Your task to perform on an android device: move an email to a new category in the gmail app Image 0: 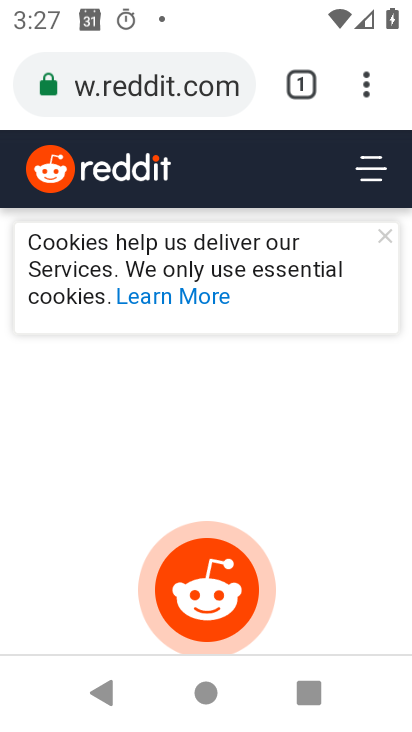
Step 0: press home button
Your task to perform on an android device: move an email to a new category in the gmail app Image 1: 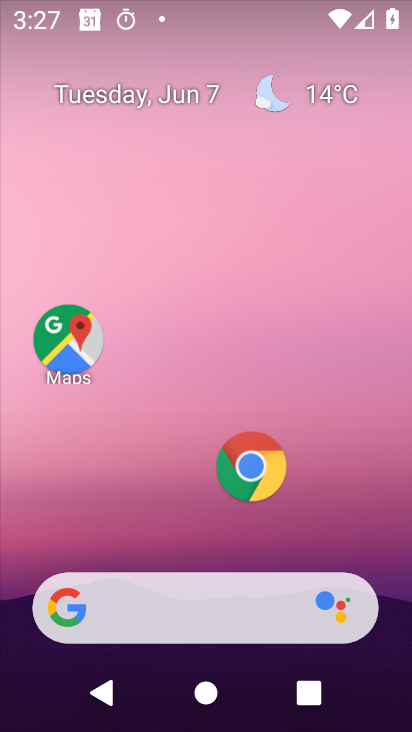
Step 1: drag from (131, 337) to (110, 28)
Your task to perform on an android device: move an email to a new category in the gmail app Image 2: 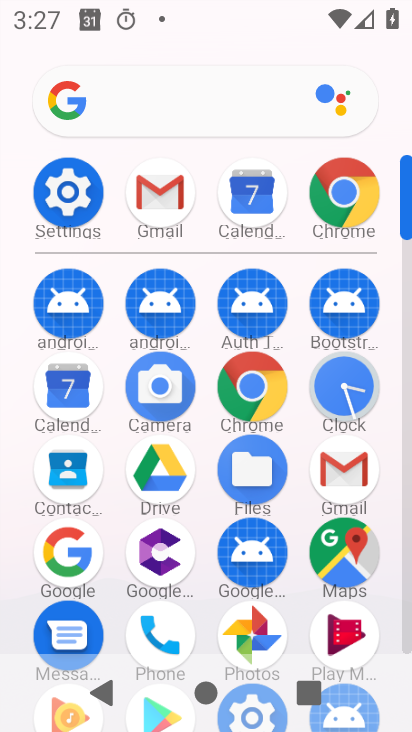
Step 2: click (168, 215)
Your task to perform on an android device: move an email to a new category in the gmail app Image 3: 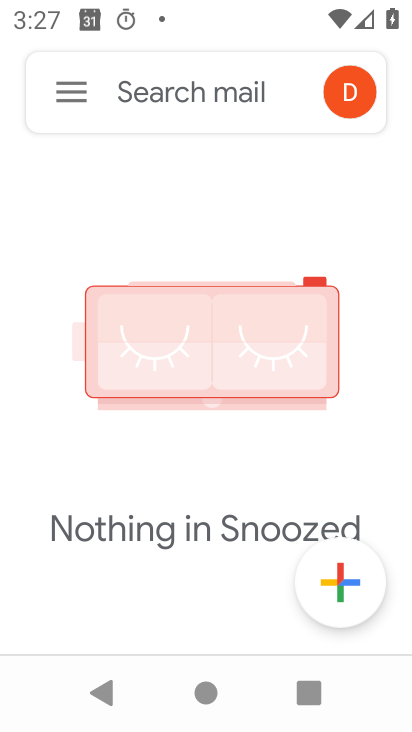
Step 3: click (46, 94)
Your task to perform on an android device: move an email to a new category in the gmail app Image 4: 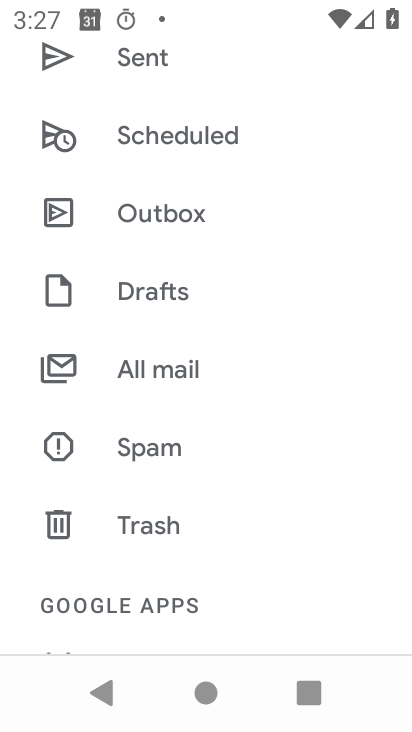
Step 4: click (157, 370)
Your task to perform on an android device: move an email to a new category in the gmail app Image 5: 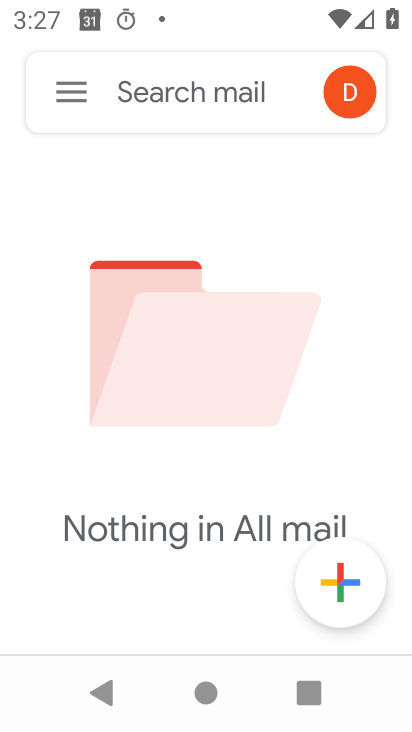
Step 5: click (80, 99)
Your task to perform on an android device: move an email to a new category in the gmail app Image 6: 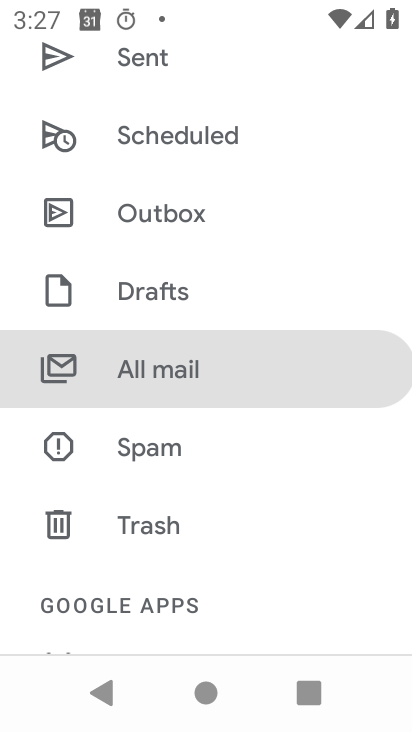
Step 6: drag from (239, 140) to (162, 718)
Your task to perform on an android device: move an email to a new category in the gmail app Image 7: 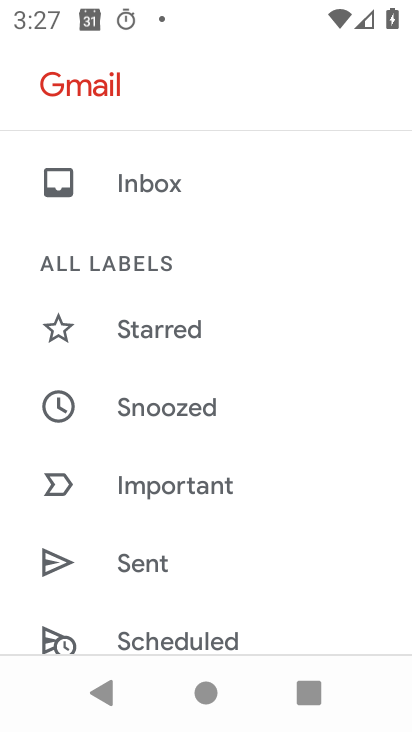
Step 7: click (163, 192)
Your task to perform on an android device: move an email to a new category in the gmail app Image 8: 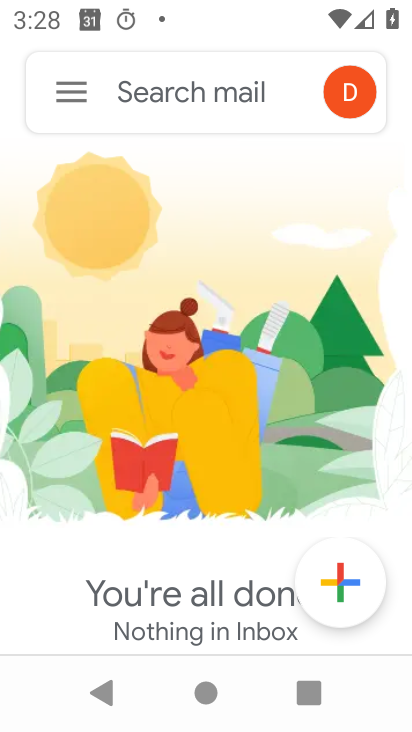
Step 8: task complete